Your task to perform on an android device: read, delete, or share a saved page in the chrome app Image 0: 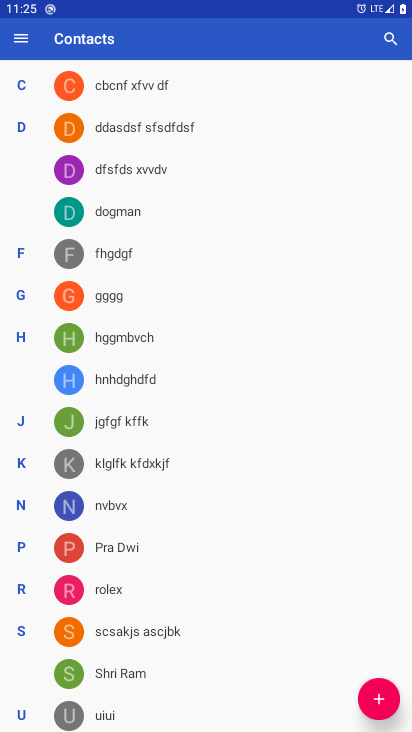
Step 0: press home button
Your task to perform on an android device: read, delete, or share a saved page in the chrome app Image 1: 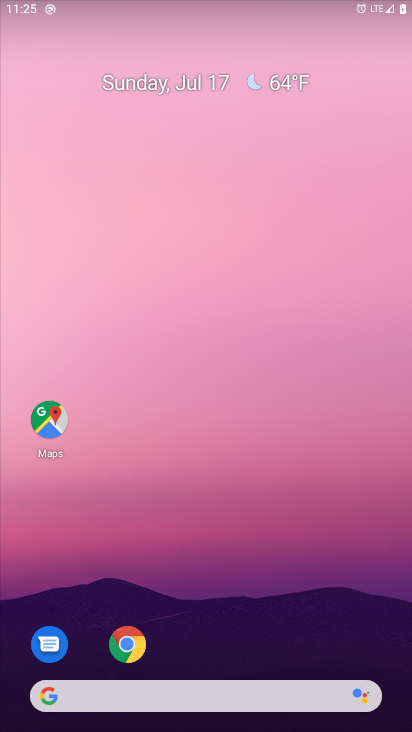
Step 1: drag from (263, 513) to (272, 65)
Your task to perform on an android device: read, delete, or share a saved page in the chrome app Image 2: 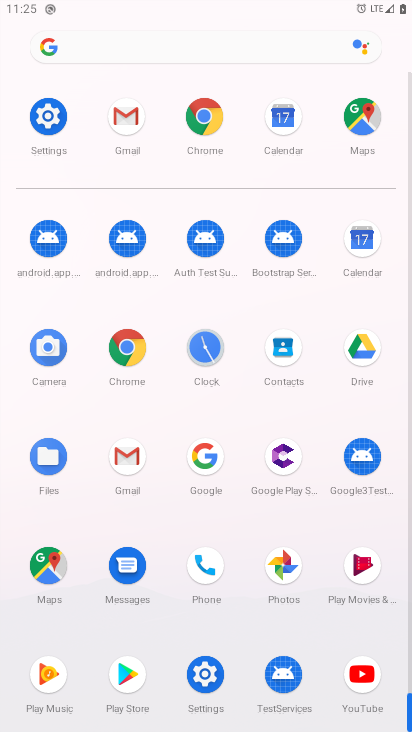
Step 2: click (130, 345)
Your task to perform on an android device: read, delete, or share a saved page in the chrome app Image 3: 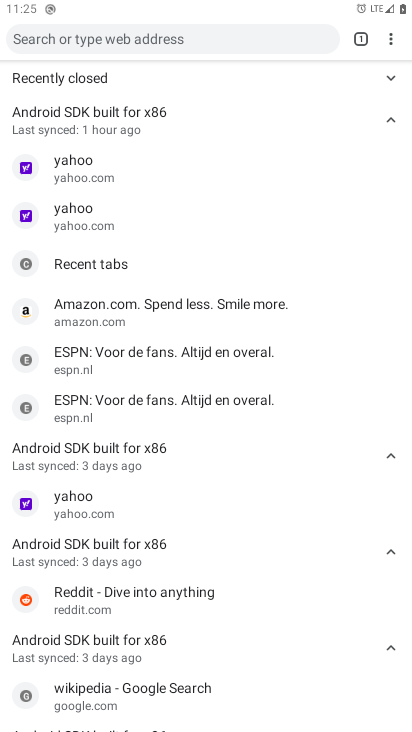
Step 3: drag from (382, 43) to (266, 248)
Your task to perform on an android device: read, delete, or share a saved page in the chrome app Image 4: 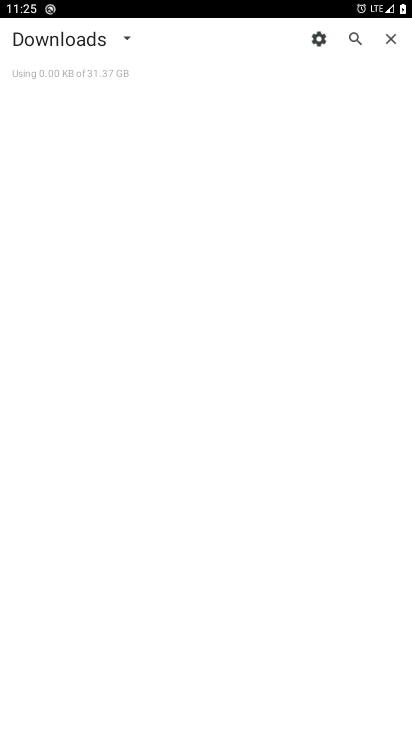
Step 4: click (126, 37)
Your task to perform on an android device: read, delete, or share a saved page in the chrome app Image 5: 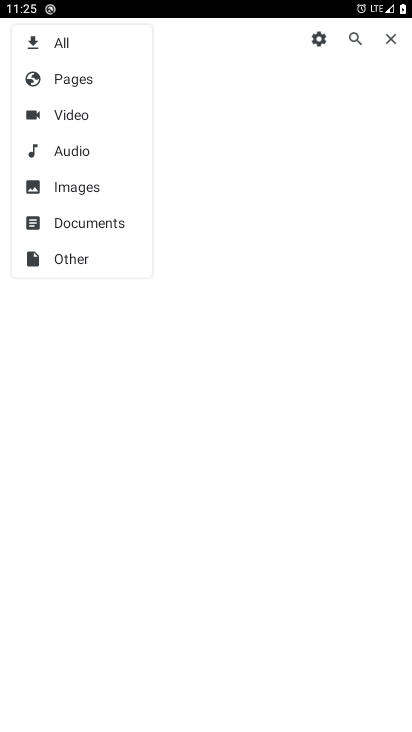
Step 5: click (48, 41)
Your task to perform on an android device: read, delete, or share a saved page in the chrome app Image 6: 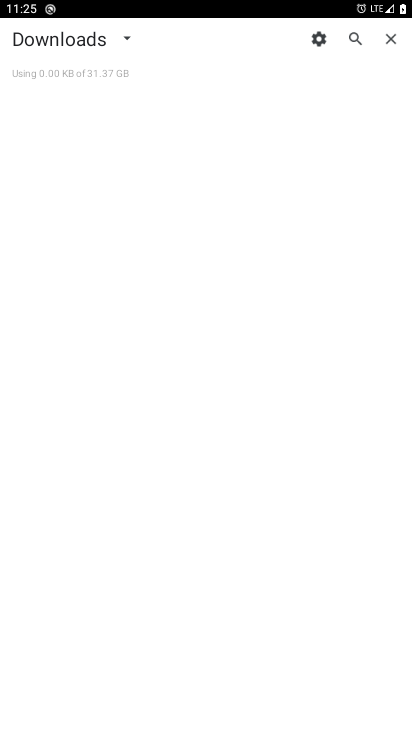
Step 6: task complete